Your task to perform on an android device: Go to Google Image 0: 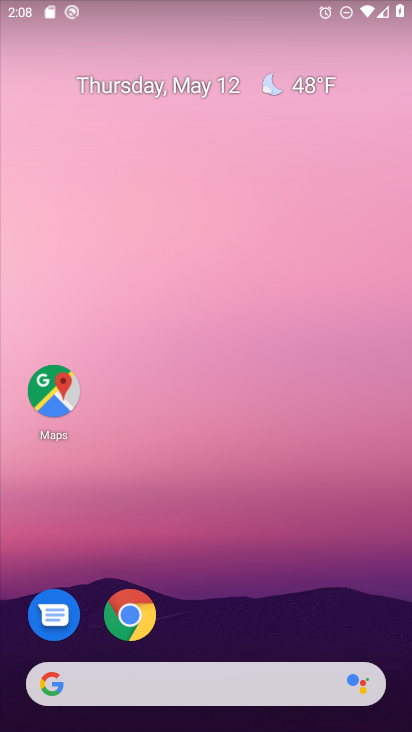
Step 0: drag from (205, 694) to (278, 17)
Your task to perform on an android device: Go to Google Image 1: 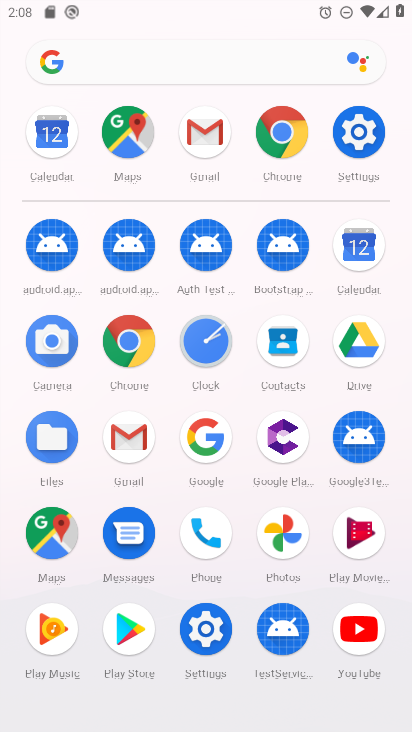
Step 1: click (129, 344)
Your task to perform on an android device: Go to Google Image 2: 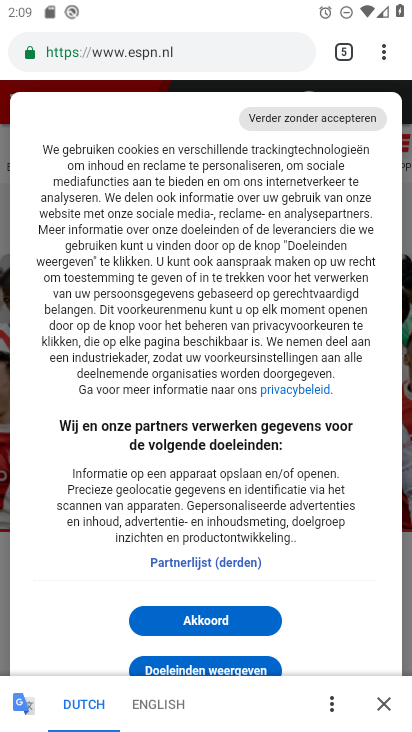
Step 2: task complete